Your task to perform on an android device: open chrome privacy settings Image 0: 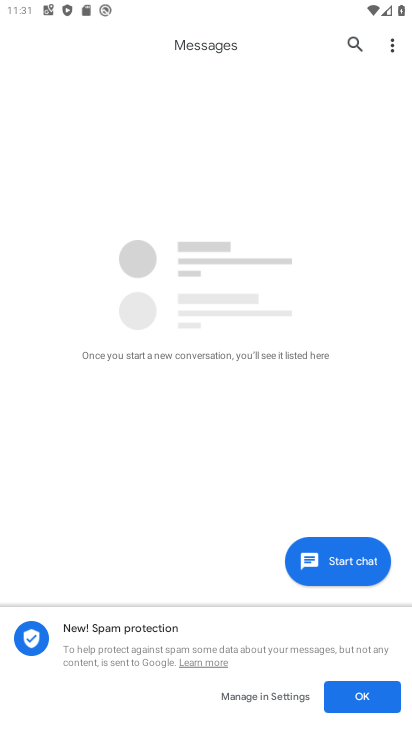
Step 0: press home button
Your task to perform on an android device: open chrome privacy settings Image 1: 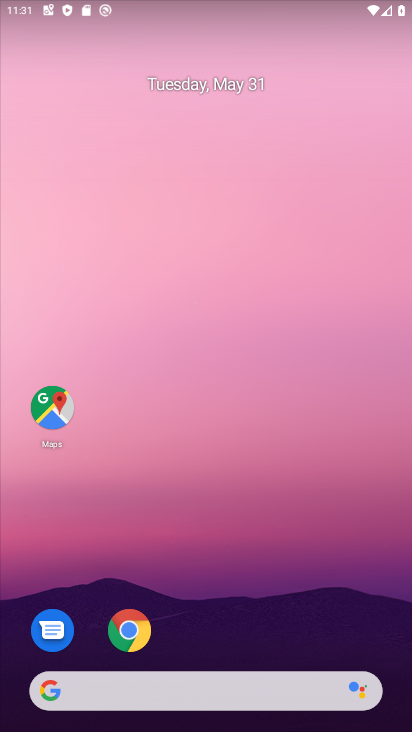
Step 1: click (133, 637)
Your task to perform on an android device: open chrome privacy settings Image 2: 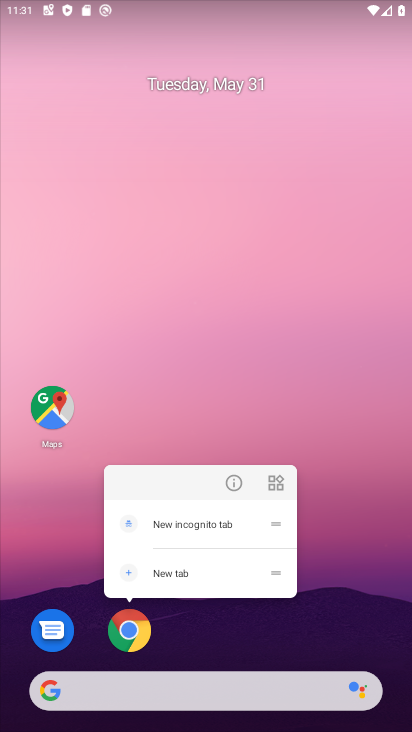
Step 2: click (130, 631)
Your task to perform on an android device: open chrome privacy settings Image 3: 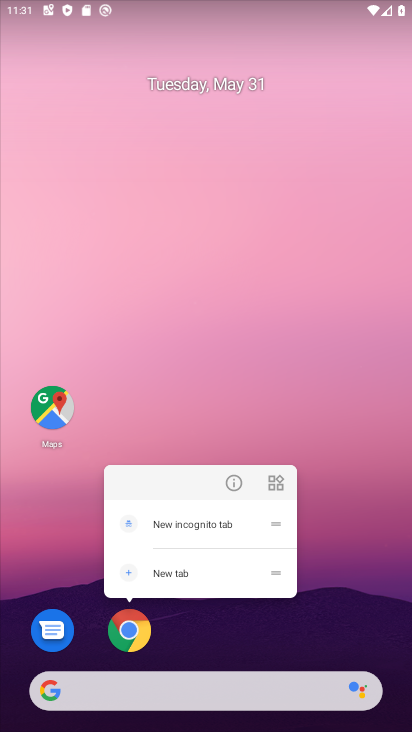
Step 3: click (131, 633)
Your task to perform on an android device: open chrome privacy settings Image 4: 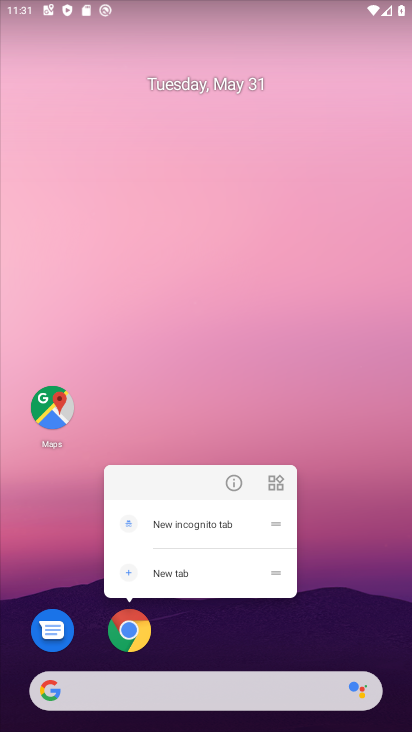
Step 4: click (130, 632)
Your task to perform on an android device: open chrome privacy settings Image 5: 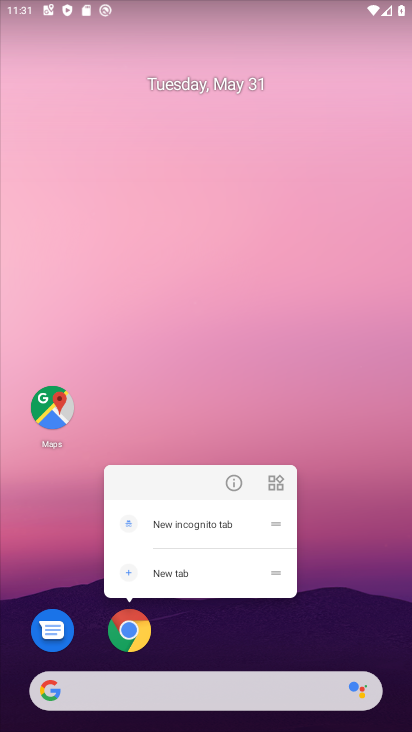
Step 5: click (124, 633)
Your task to perform on an android device: open chrome privacy settings Image 6: 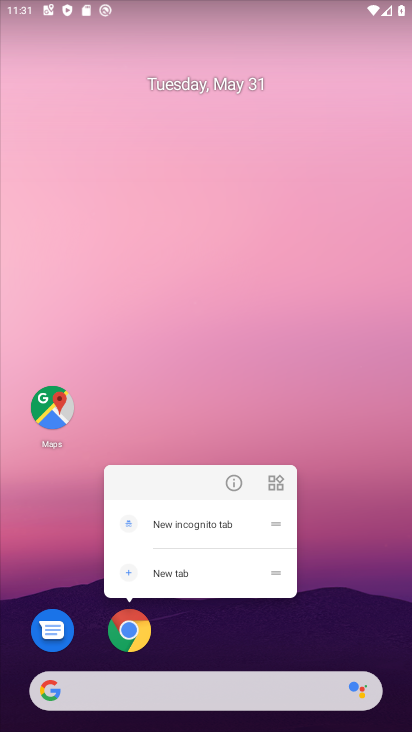
Step 6: click (124, 630)
Your task to perform on an android device: open chrome privacy settings Image 7: 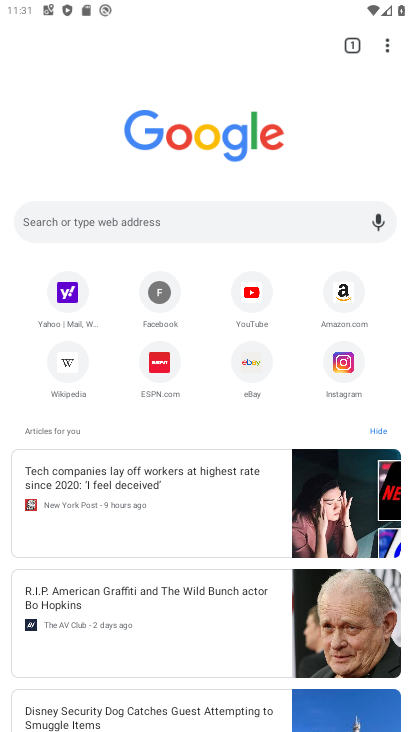
Step 7: drag from (384, 44) to (228, 380)
Your task to perform on an android device: open chrome privacy settings Image 8: 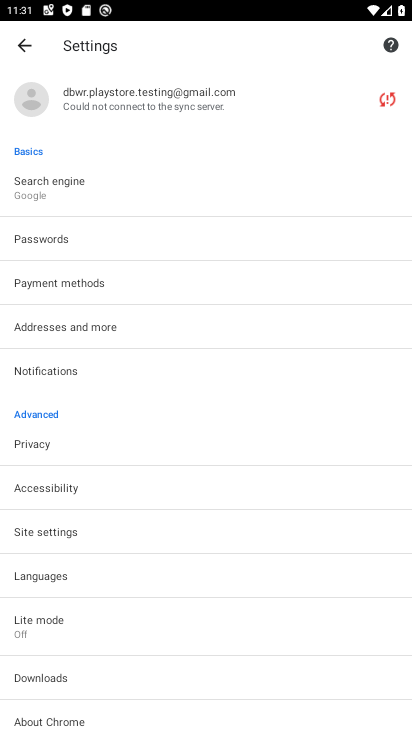
Step 8: click (47, 438)
Your task to perform on an android device: open chrome privacy settings Image 9: 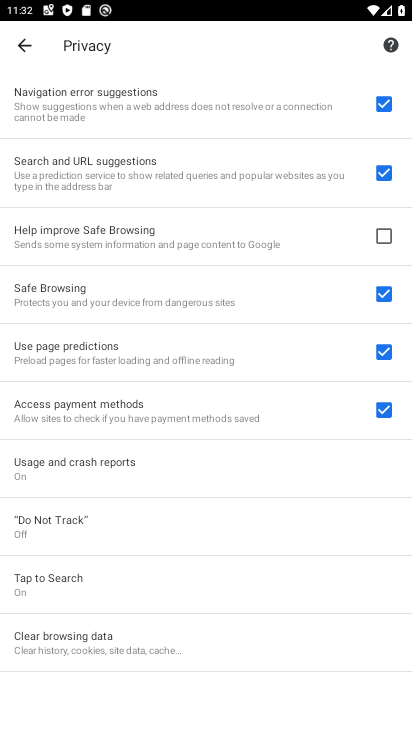
Step 9: task complete